Your task to perform on an android device: Search for flights from Mexico city to Seattle Image 0: 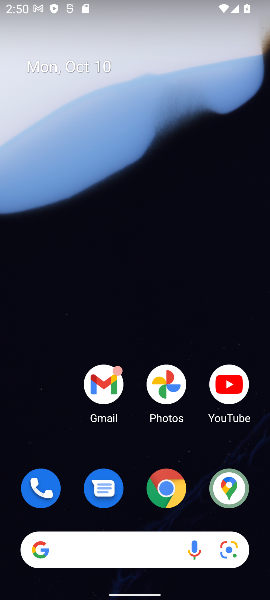
Step 0: drag from (142, 498) to (172, 137)
Your task to perform on an android device: Search for flights from Mexico city to Seattle Image 1: 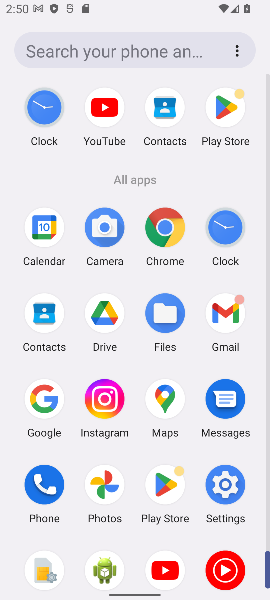
Step 1: click (43, 400)
Your task to perform on an android device: Search for flights from Mexico city to Seattle Image 2: 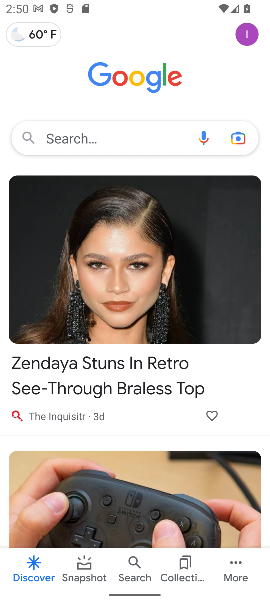
Step 2: click (79, 139)
Your task to perform on an android device: Search for flights from Mexico city to Seattle Image 3: 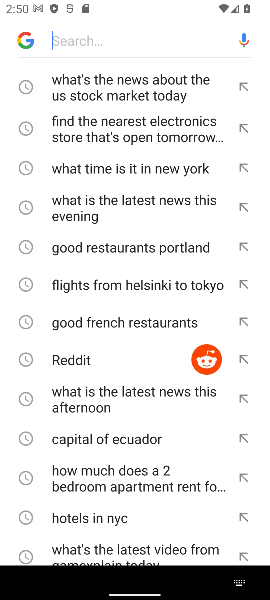
Step 3: click (79, 42)
Your task to perform on an android device: Search for flights from Mexico city to Seattle Image 4: 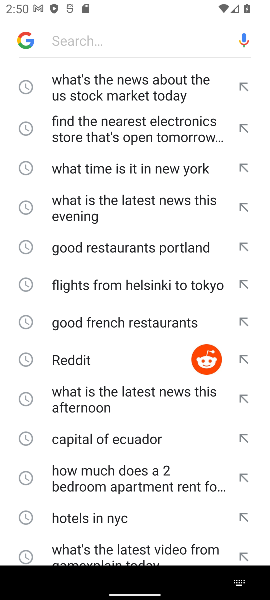
Step 4: type " flights from Mexico city to Seattle"
Your task to perform on an android device: Search for flights from Mexico city to Seattle Image 5: 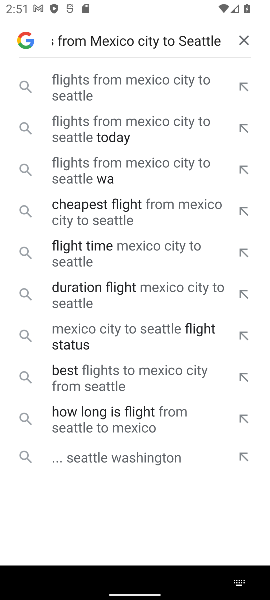
Step 5: click (99, 94)
Your task to perform on an android device: Search for flights from Mexico city to Seattle Image 6: 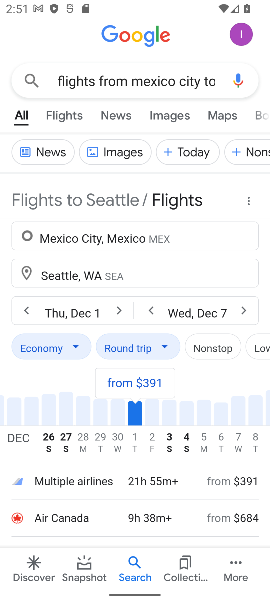
Step 6: task complete